Your task to perform on an android device: Open eBay Image 0: 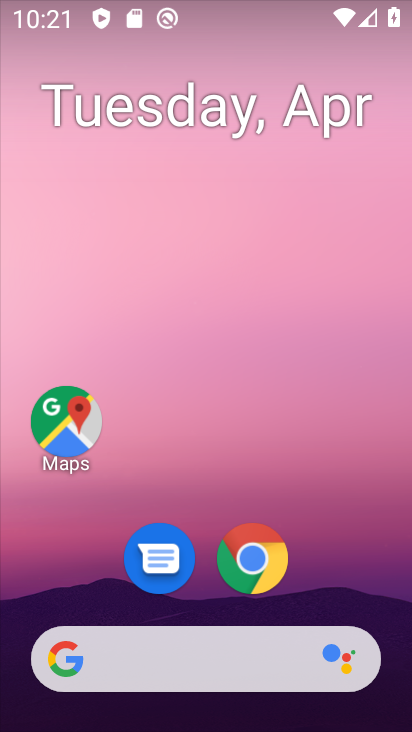
Step 0: click (252, 549)
Your task to perform on an android device: Open eBay Image 1: 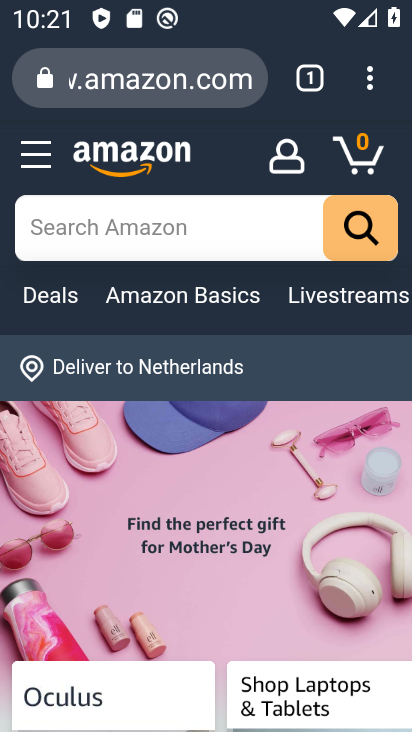
Step 1: click (203, 91)
Your task to perform on an android device: Open eBay Image 2: 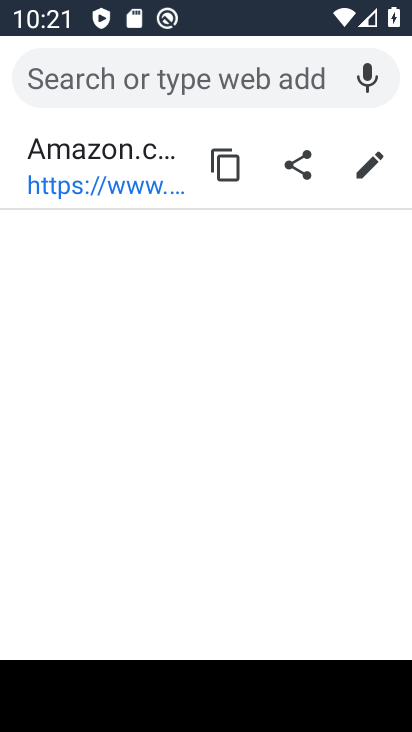
Step 2: type "ebay"
Your task to perform on an android device: Open eBay Image 3: 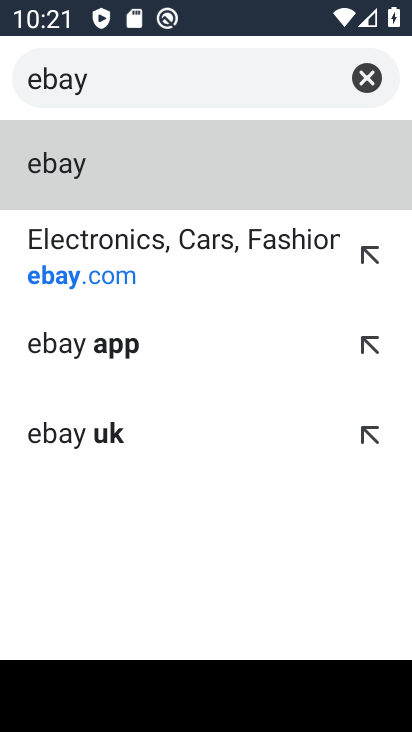
Step 3: click (179, 200)
Your task to perform on an android device: Open eBay Image 4: 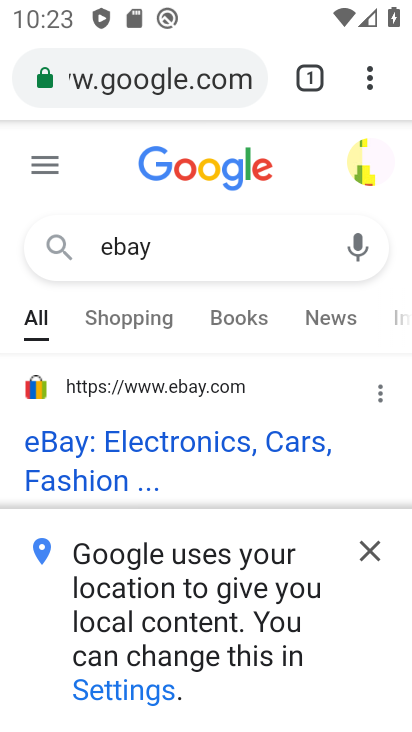
Step 4: task complete